Your task to perform on an android device: Set an alarm for 6pm Image 0: 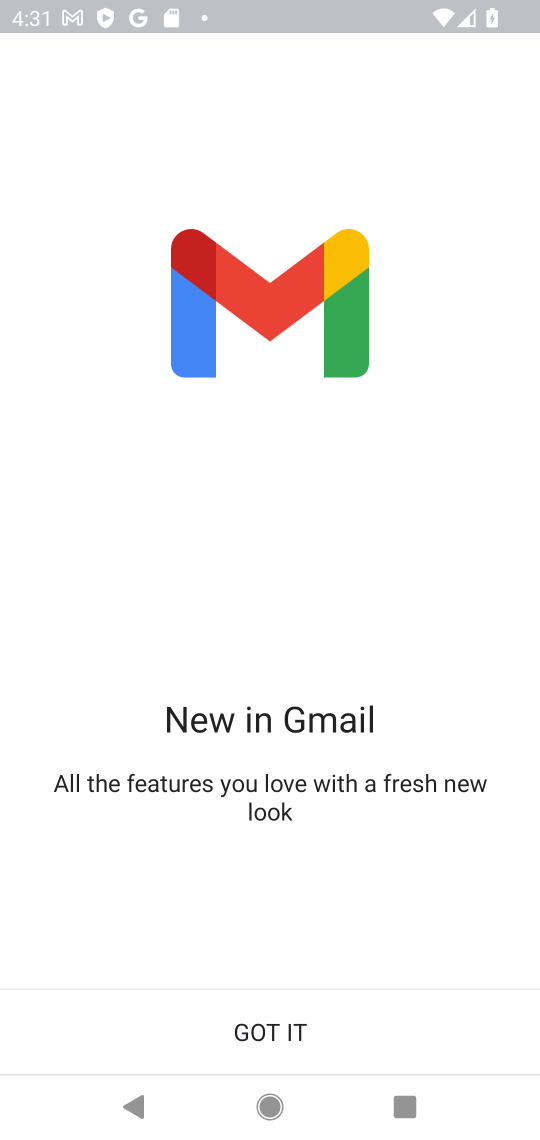
Step 0: press home button
Your task to perform on an android device: Set an alarm for 6pm Image 1: 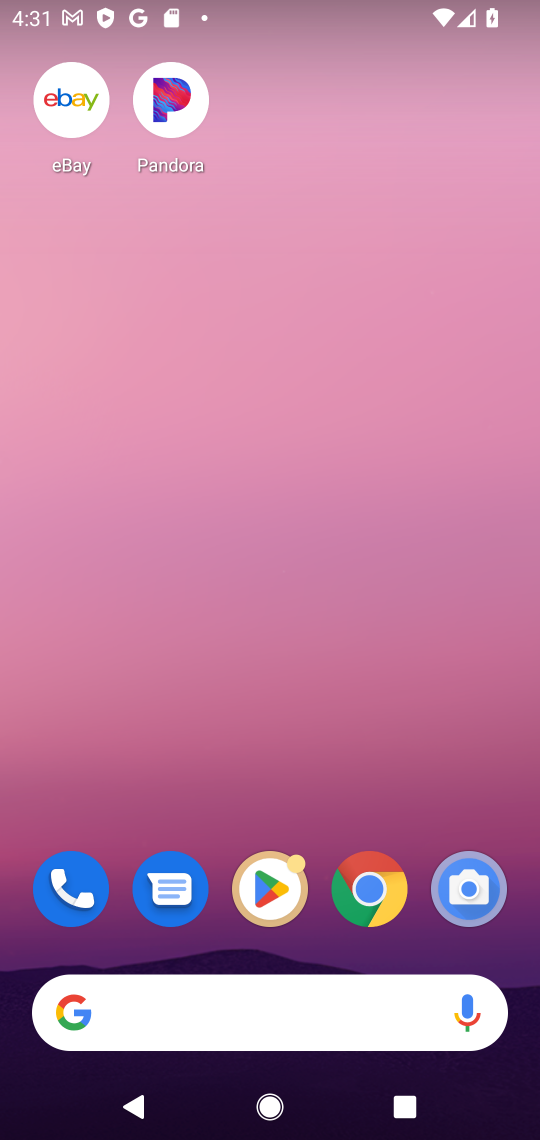
Step 1: drag from (244, 934) to (244, 272)
Your task to perform on an android device: Set an alarm for 6pm Image 2: 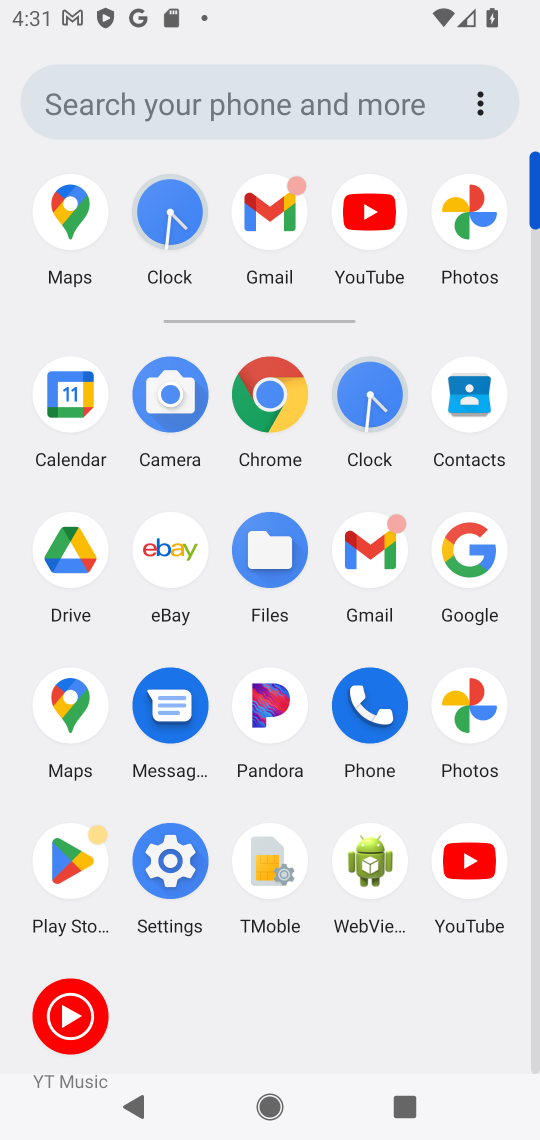
Step 2: click (364, 379)
Your task to perform on an android device: Set an alarm for 6pm Image 3: 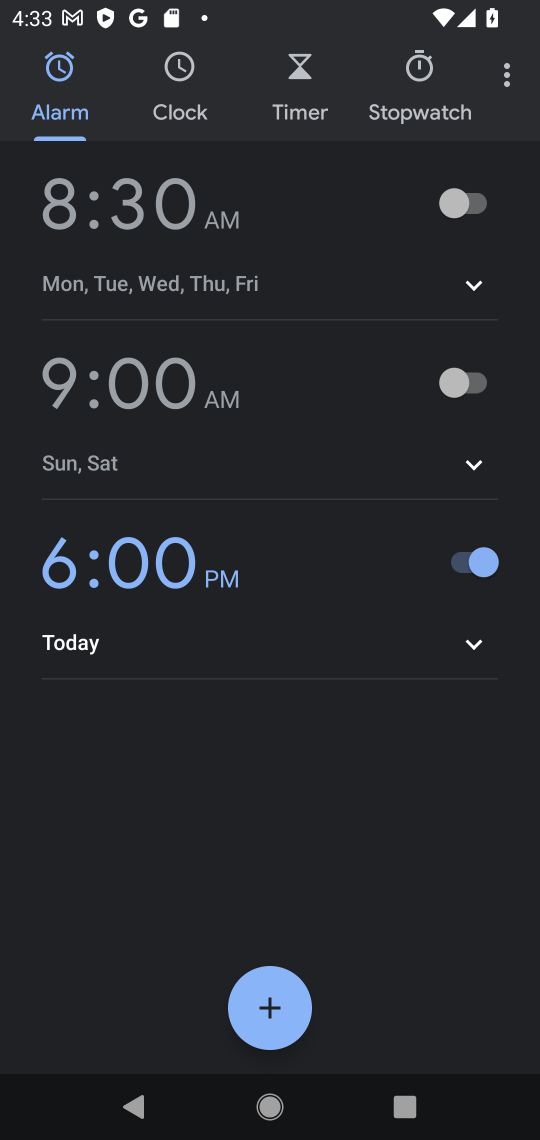
Step 3: task complete